Your task to perform on an android device: turn off picture-in-picture Image 0: 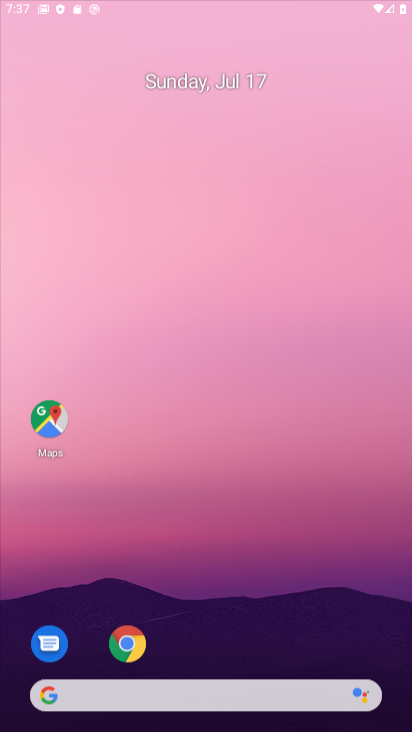
Step 0: click (361, 56)
Your task to perform on an android device: turn off picture-in-picture Image 1: 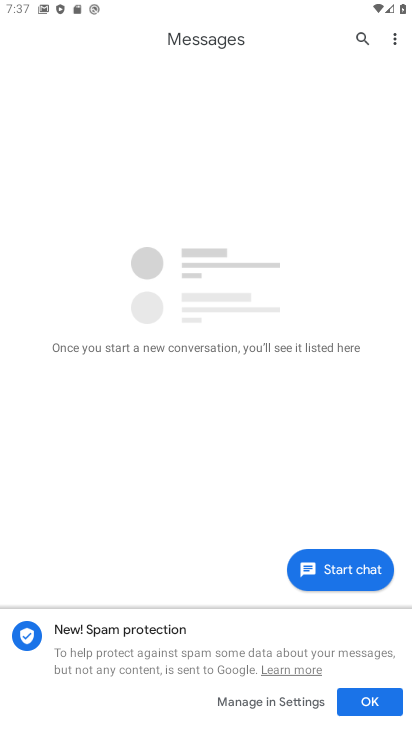
Step 1: press home button
Your task to perform on an android device: turn off picture-in-picture Image 2: 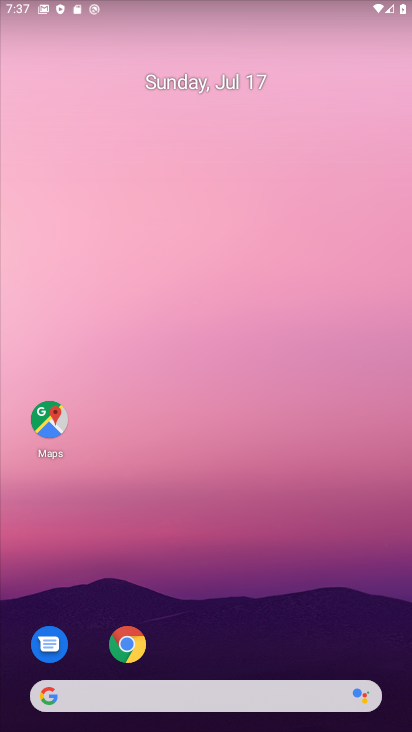
Step 2: drag from (265, 579) to (234, 15)
Your task to perform on an android device: turn off picture-in-picture Image 3: 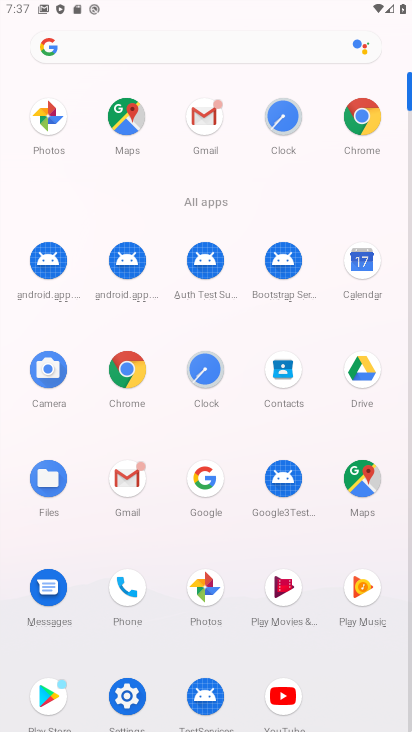
Step 3: click (366, 135)
Your task to perform on an android device: turn off picture-in-picture Image 4: 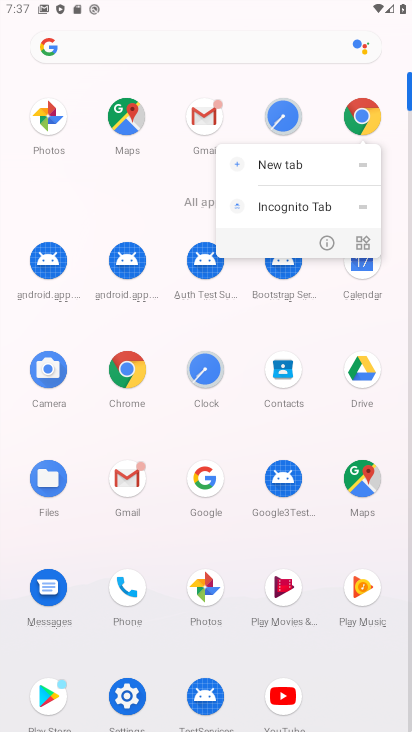
Step 4: click (326, 236)
Your task to perform on an android device: turn off picture-in-picture Image 5: 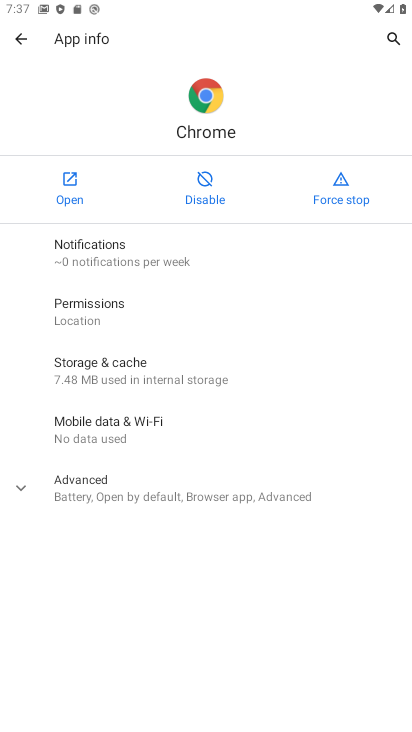
Step 5: click (95, 491)
Your task to perform on an android device: turn off picture-in-picture Image 6: 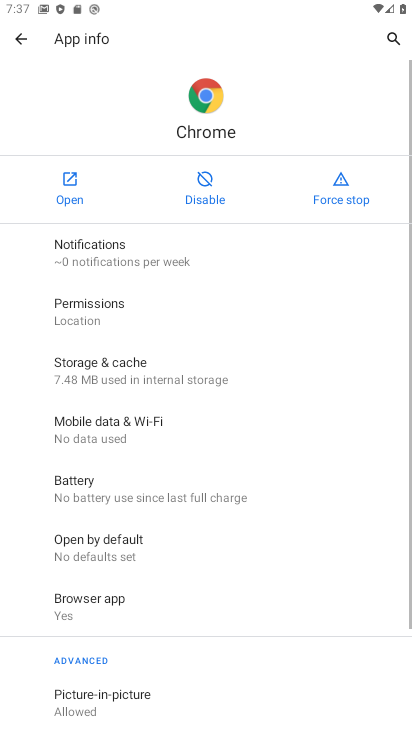
Step 6: click (71, 696)
Your task to perform on an android device: turn off picture-in-picture Image 7: 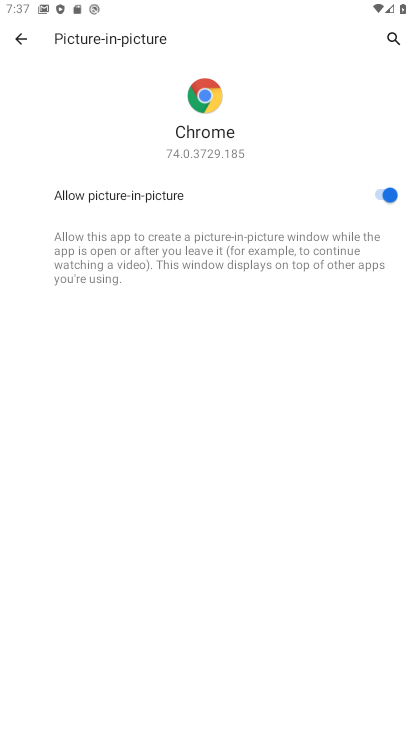
Step 7: click (379, 192)
Your task to perform on an android device: turn off picture-in-picture Image 8: 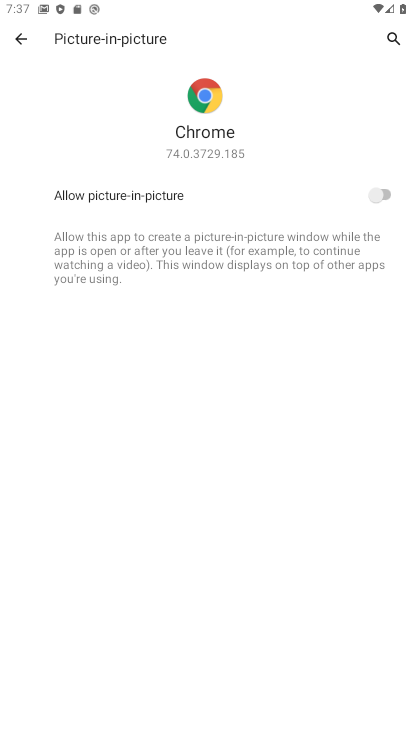
Step 8: task complete